Your task to perform on an android device: turn off data saver in the chrome app Image 0: 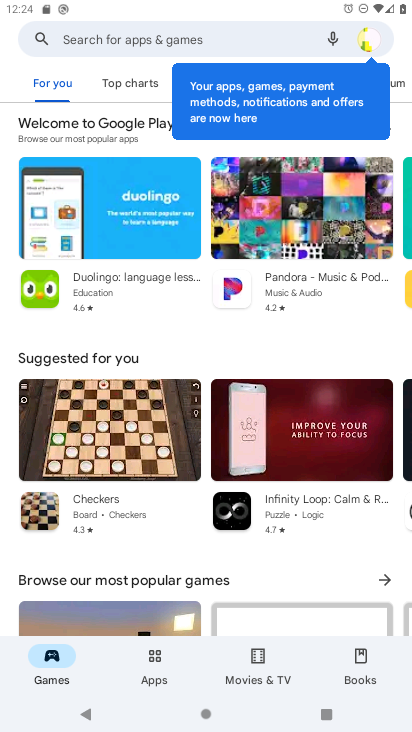
Step 0: press home button
Your task to perform on an android device: turn off data saver in the chrome app Image 1: 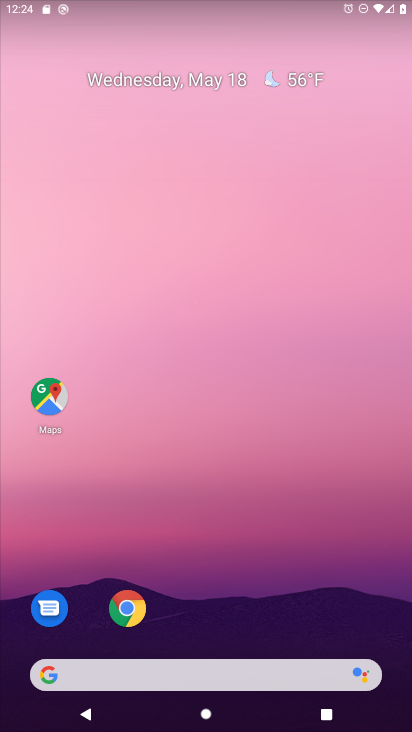
Step 1: drag from (246, 686) to (295, 203)
Your task to perform on an android device: turn off data saver in the chrome app Image 2: 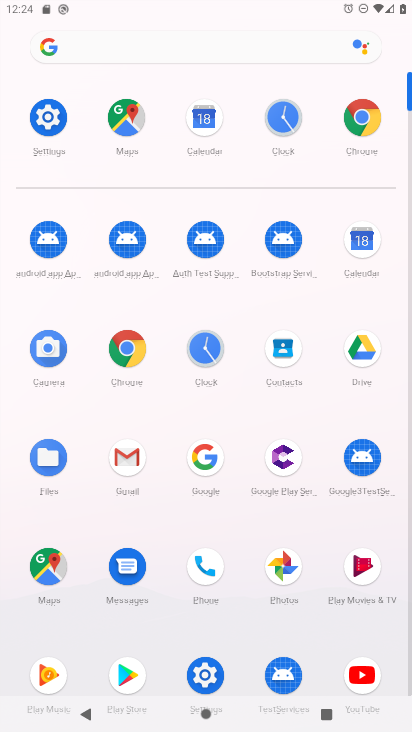
Step 2: click (143, 348)
Your task to perform on an android device: turn off data saver in the chrome app Image 3: 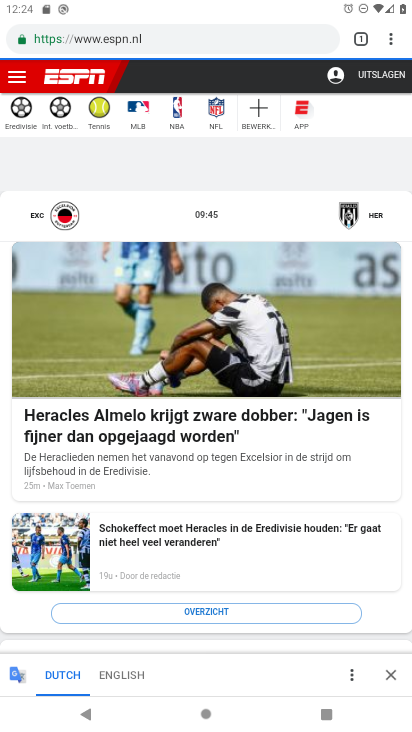
Step 3: click (388, 45)
Your task to perform on an android device: turn off data saver in the chrome app Image 4: 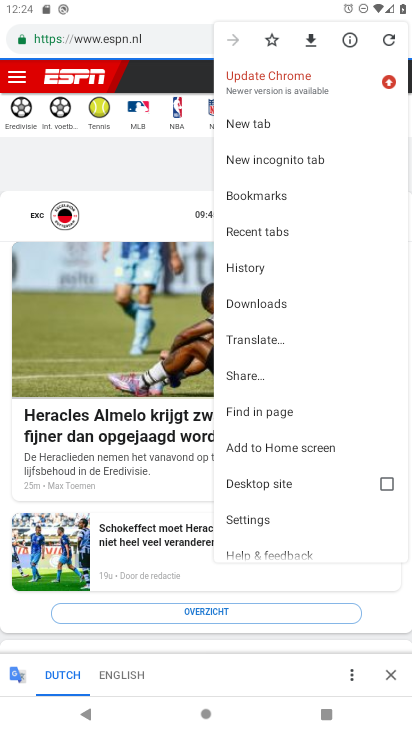
Step 4: click (257, 515)
Your task to perform on an android device: turn off data saver in the chrome app Image 5: 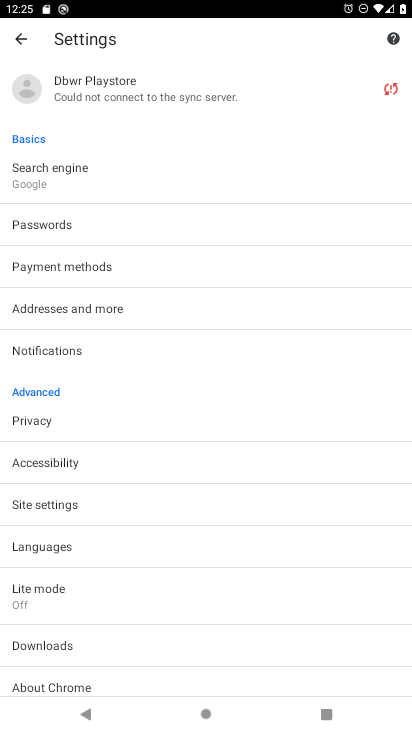
Step 5: click (47, 588)
Your task to perform on an android device: turn off data saver in the chrome app Image 6: 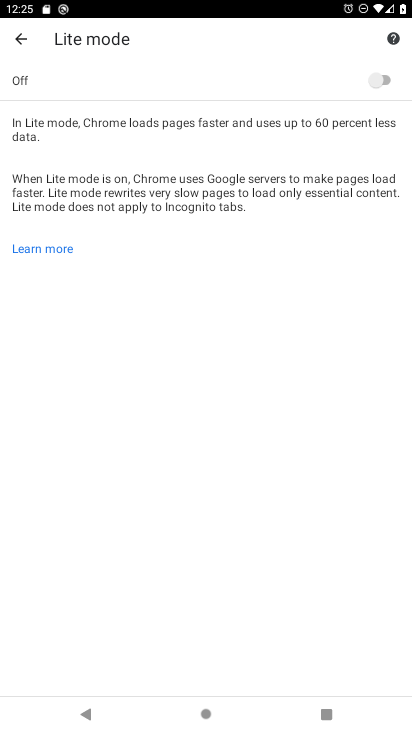
Step 6: click (388, 69)
Your task to perform on an android device: turn off data saver in the chrome app Image 7: 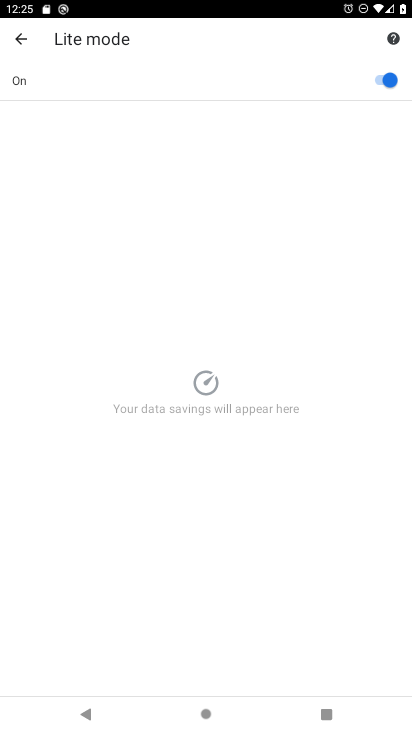
Step 7: click (395, 76)
Your task to perform on an android device: turn off data saver in the chrome app Image 8: 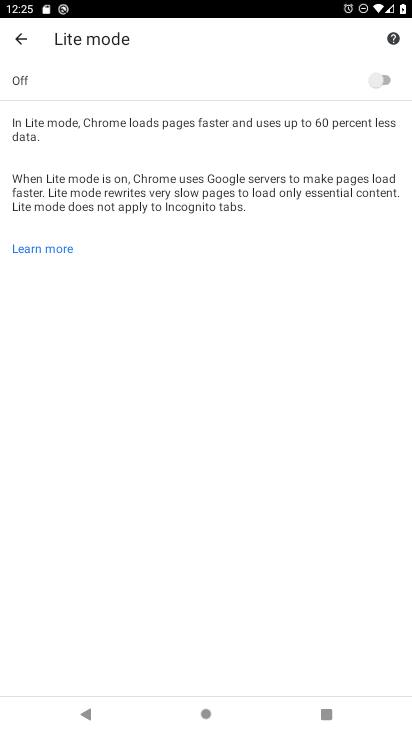
Step 8: task complete